Your task to perform on an android device: refresh tabs in the chrome app Image 0: 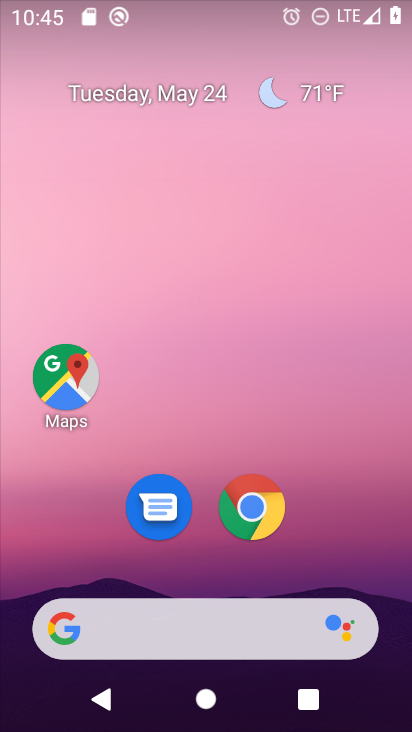
Step 0: click (259, 509)
Your task to perform on an android device: refresh tabs in the chrome app Image 1: 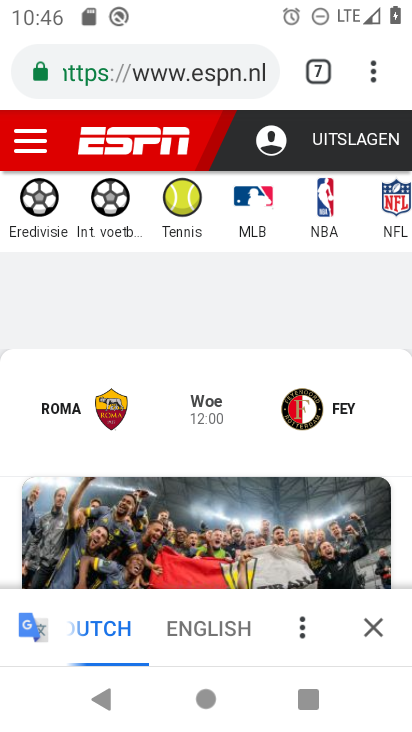
Step 1: click (375, 77)
Your task to perform on an android device: refresh tabs in the chrome app Image 2: 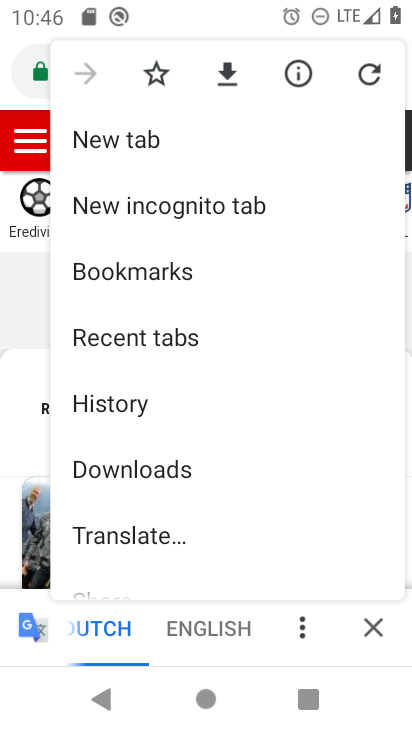
Step 2: click (371, 70)
Your task to perform on an android device: refresh tabs in the chrome app Image 3: 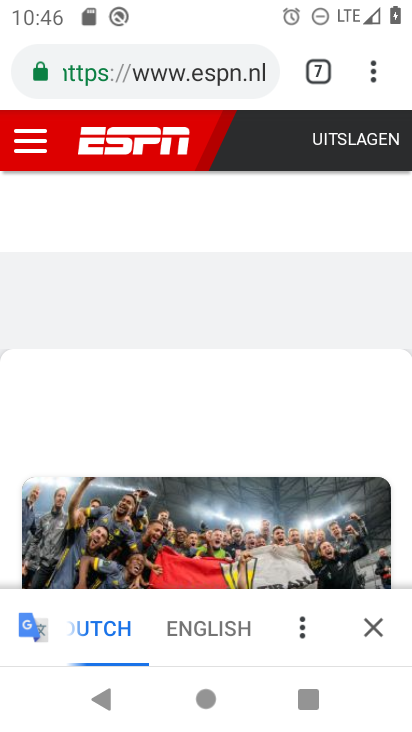
Step 3: task complete